Your task to perform on an android device: Go to accessibility settings Image 0: 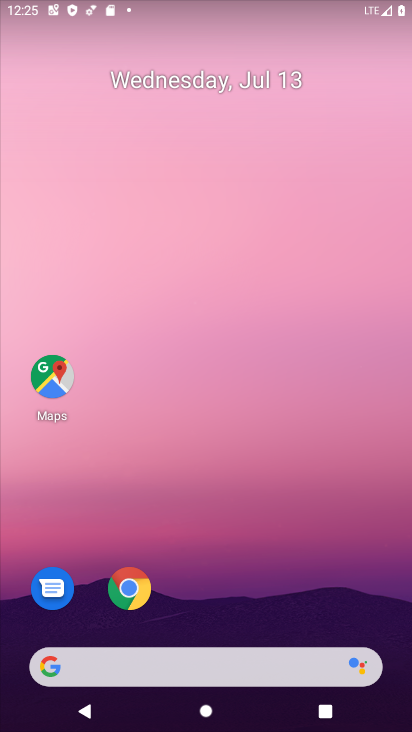
Step 0: drag from (393, 575) to (360, 100)
Your task to perform on an android device: Go to accessibility settings Image 1: 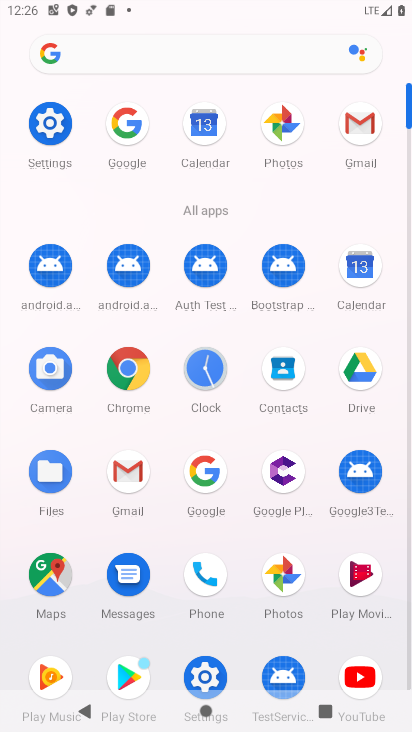
Step 1: click (200, 665)
Your task to perform on an android device: Go to accessibility settings Image 2: 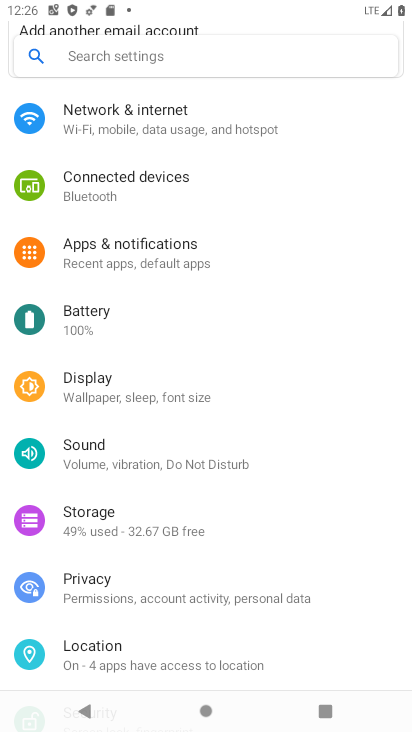
Step 2: drag from (322, 618) to (338, 305)
Your task to perform on an android device: Go to accessibility settings Image 3: 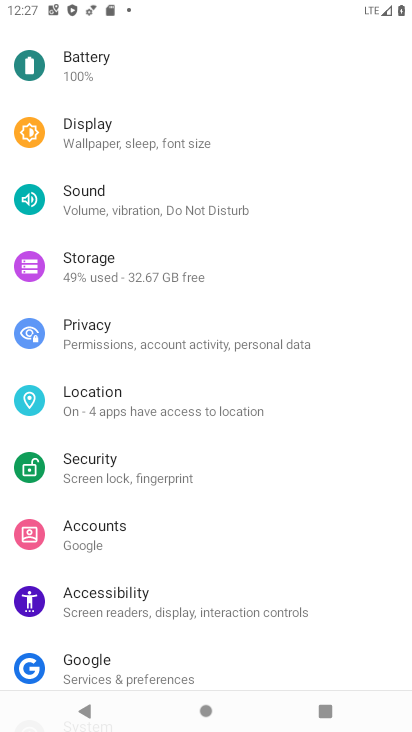
Step 3: click (92, 595)
Your task to perform on an android device: Go to accessibility settings Image 4: 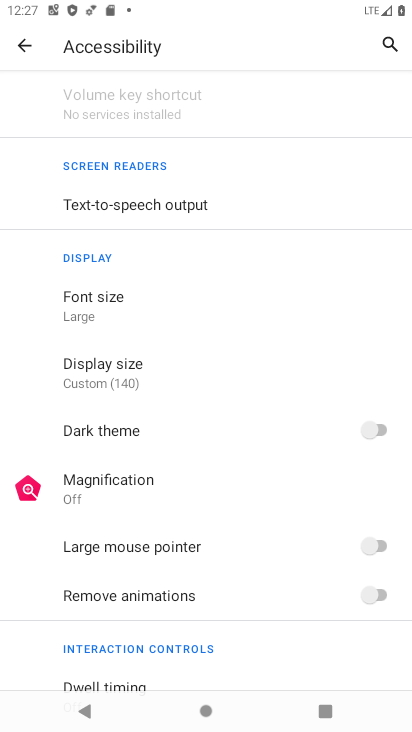
Step 4: task complete